Your task to perform on an android device: uninstall "Upside-Cash back on gas & food" Image 0: 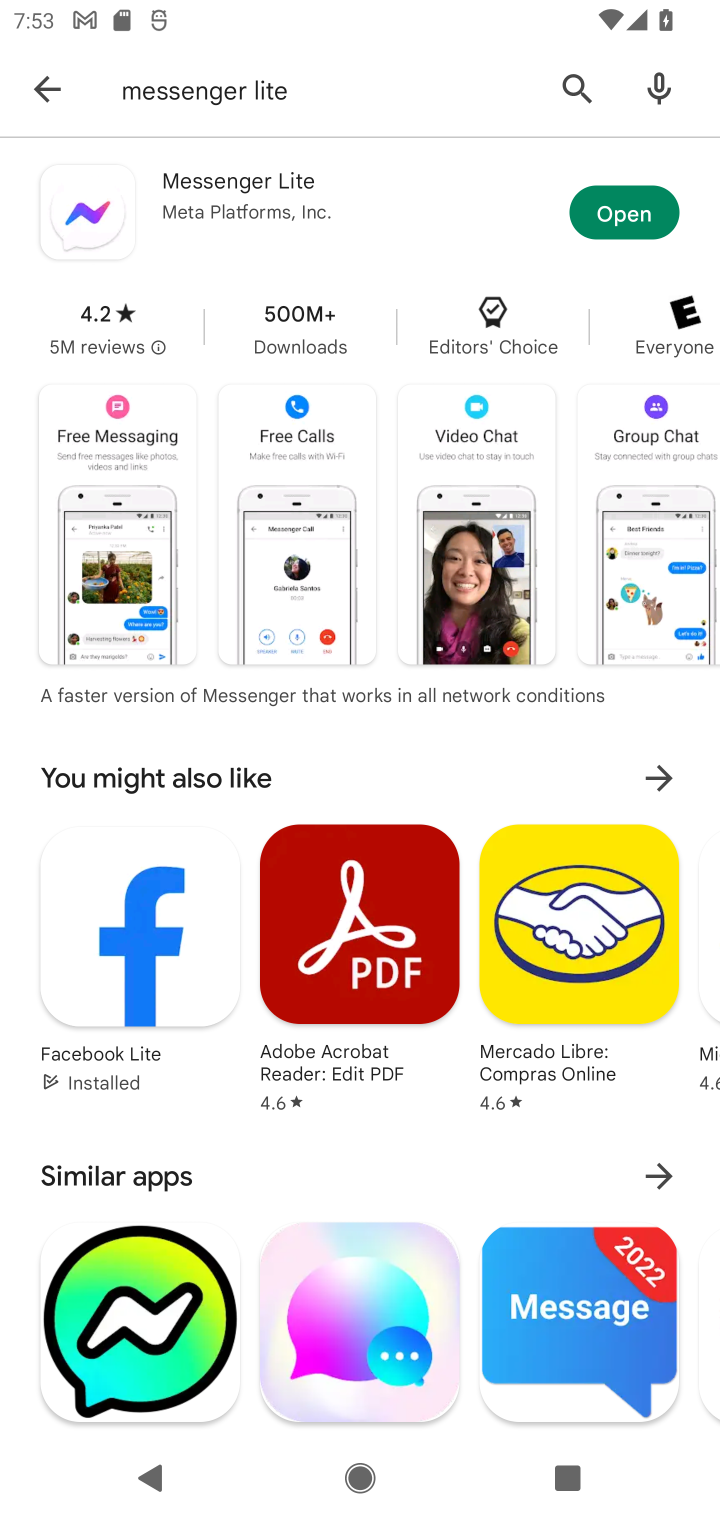
Step 0: press home button
Your task to perform on an android device: uninstall "Upside-Cash back on gas & food" Image 1: 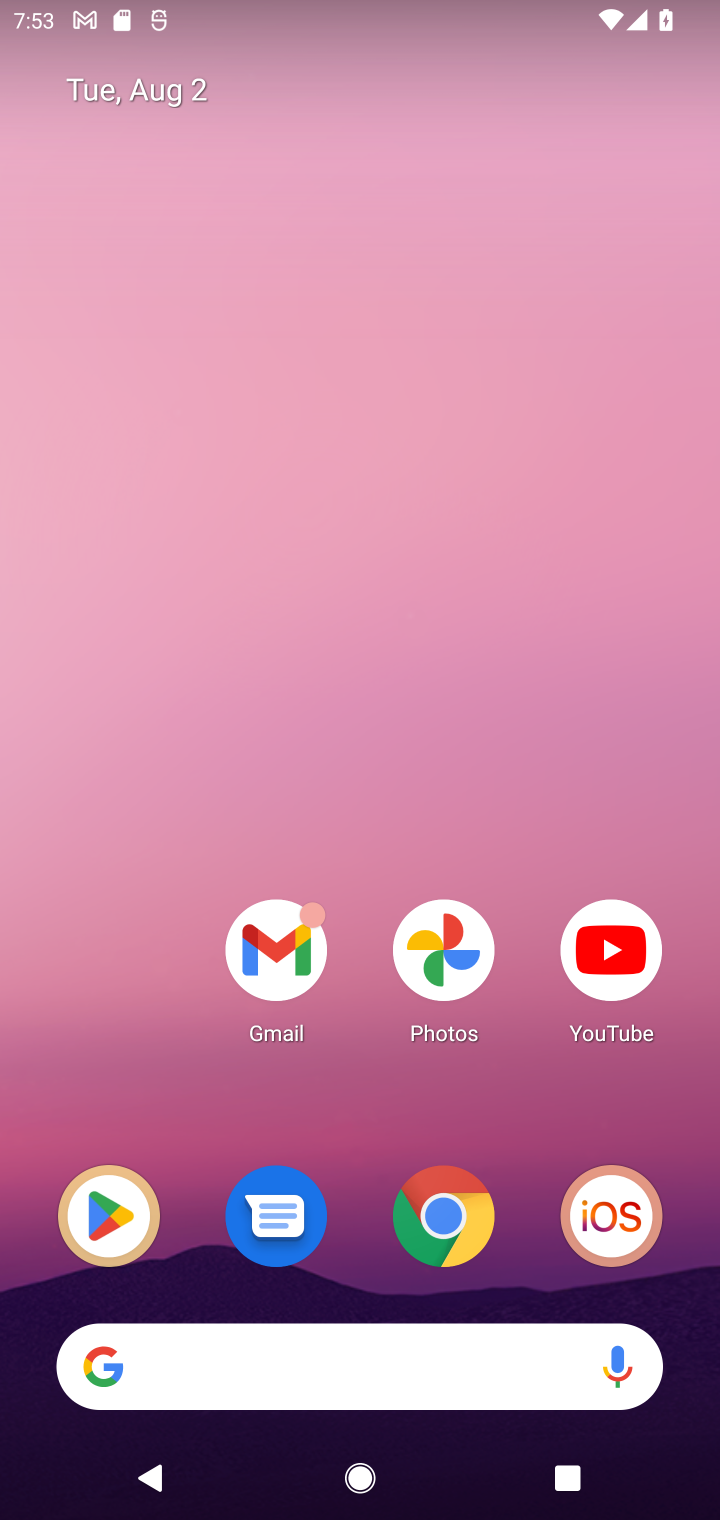
Step 1: click (122, 1232)
Your task to perform on an android device: uninstall "Upside-Cash back on gas & food" Image 2: 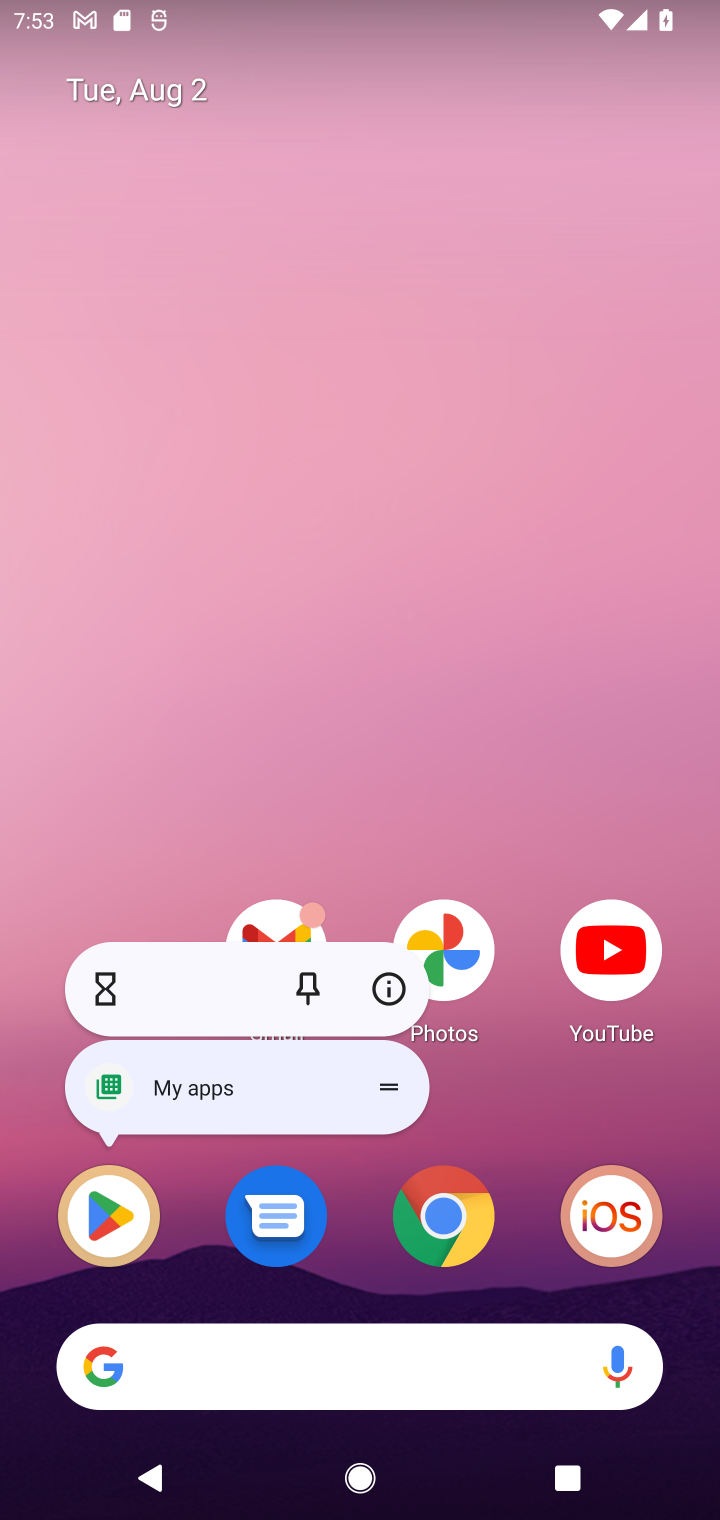
Step 2: click (106, 1215)
Your task to perform on an android device: uninstall "Upside-Cash back on gas & food" Image 3: 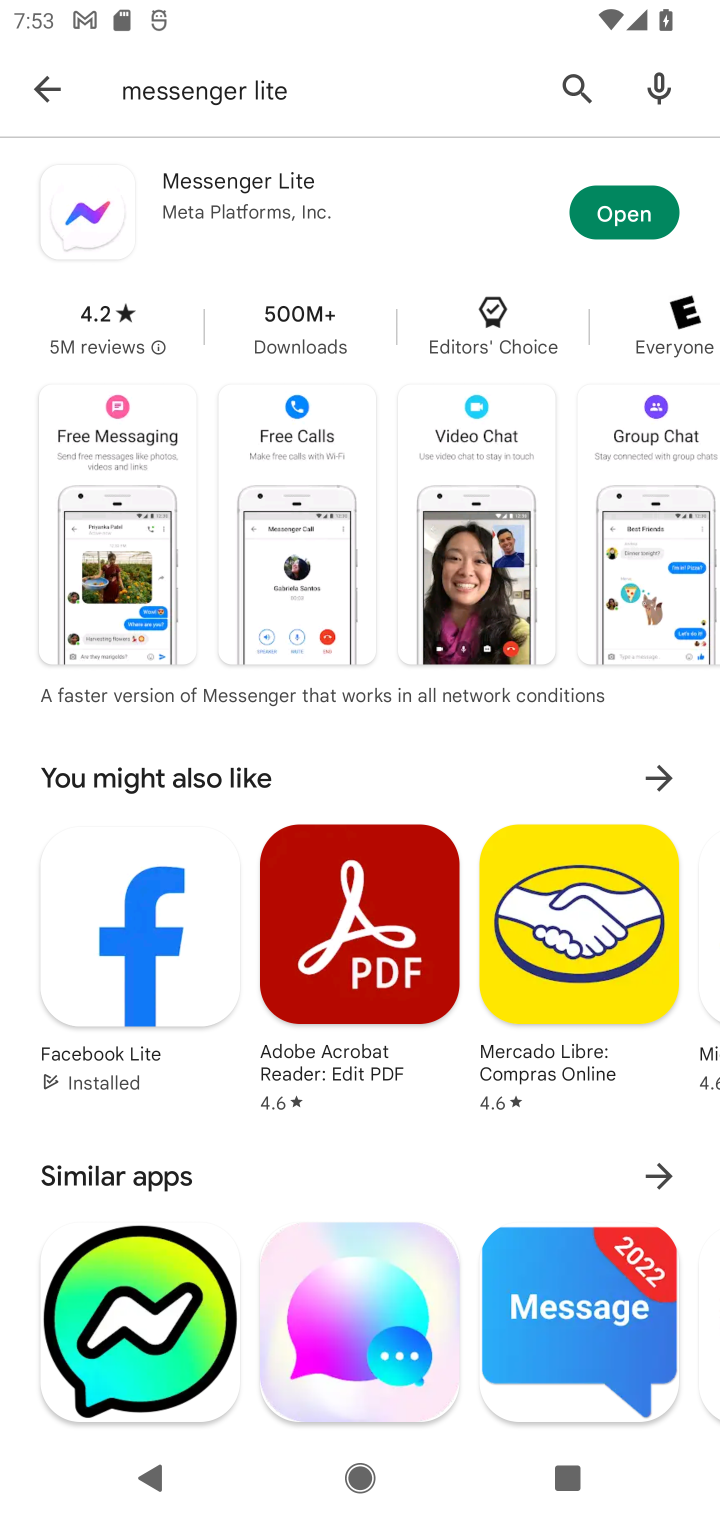
Step 3: click (575, 87)
Your task to perform on an android device: uninstall "Upside-Cash back on gas & food" Image 4: 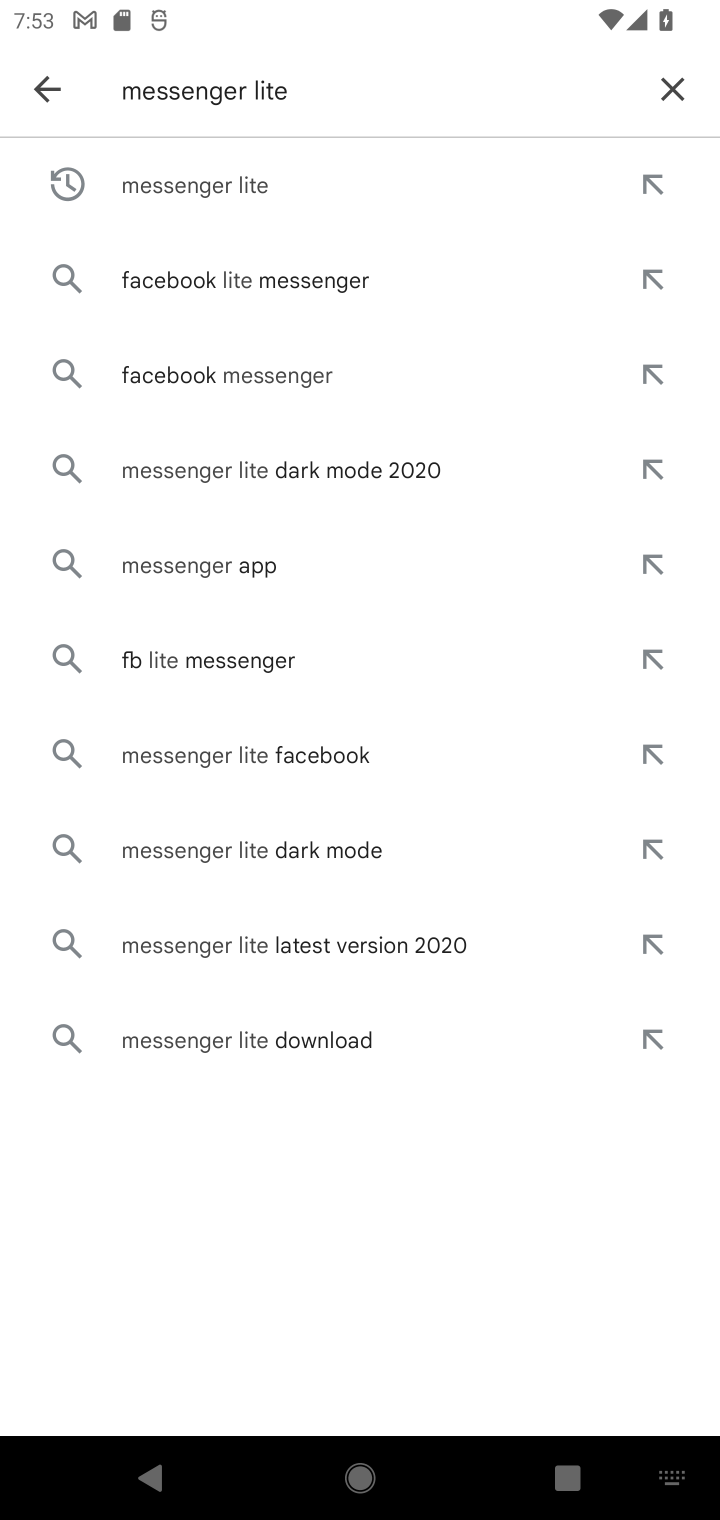
Step 4: click (667, 81)
Your task to perform on an android device: uninstall "Upside-Cash back on gas & food" Image 5: 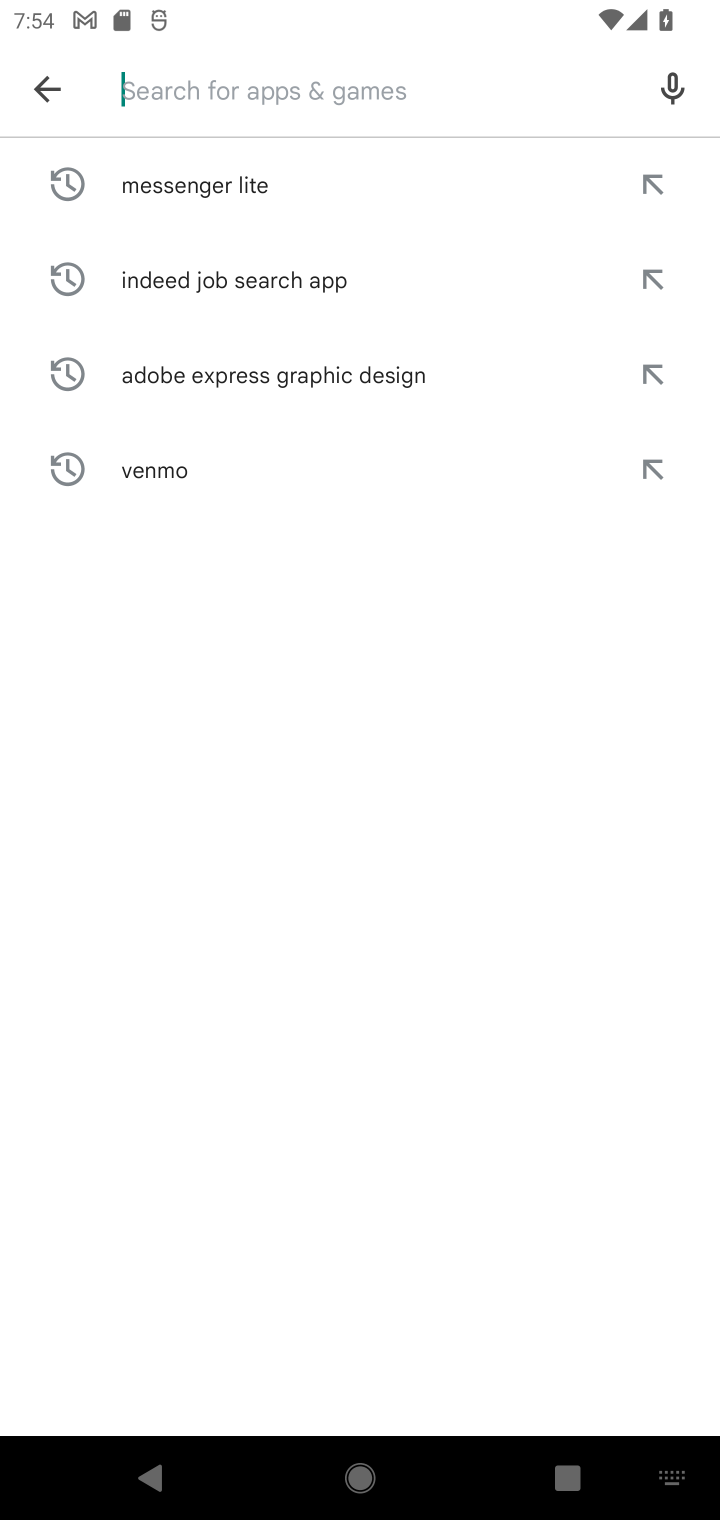
Step 5: type "Upside-Cash back on gas & food"
Your task to perform on an android device: uninstall "Upside-Cash back on gas & food" Image 6: 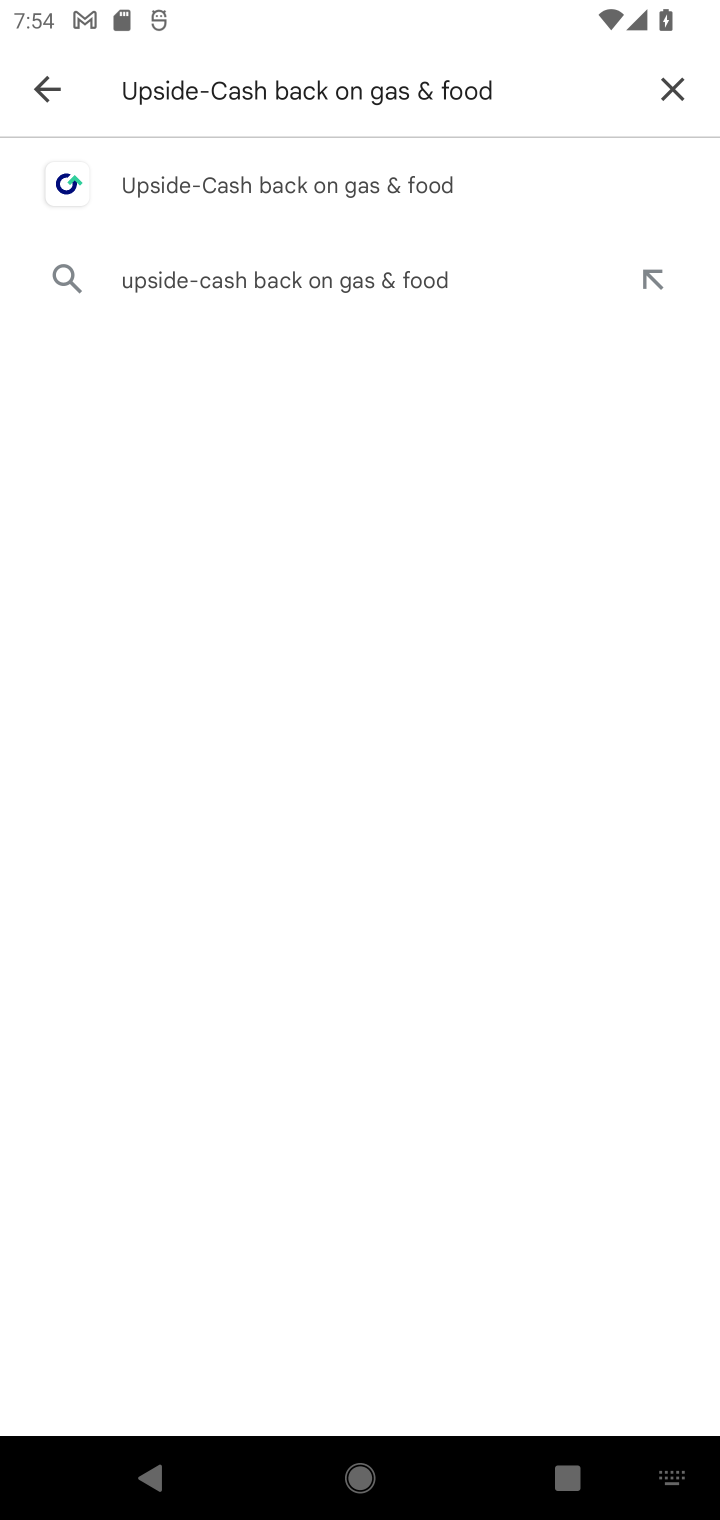
Step 6: click (315, 172)
Your task to perform on an android device: uninstall "Upside-Cash back on gas & food" Image 7: 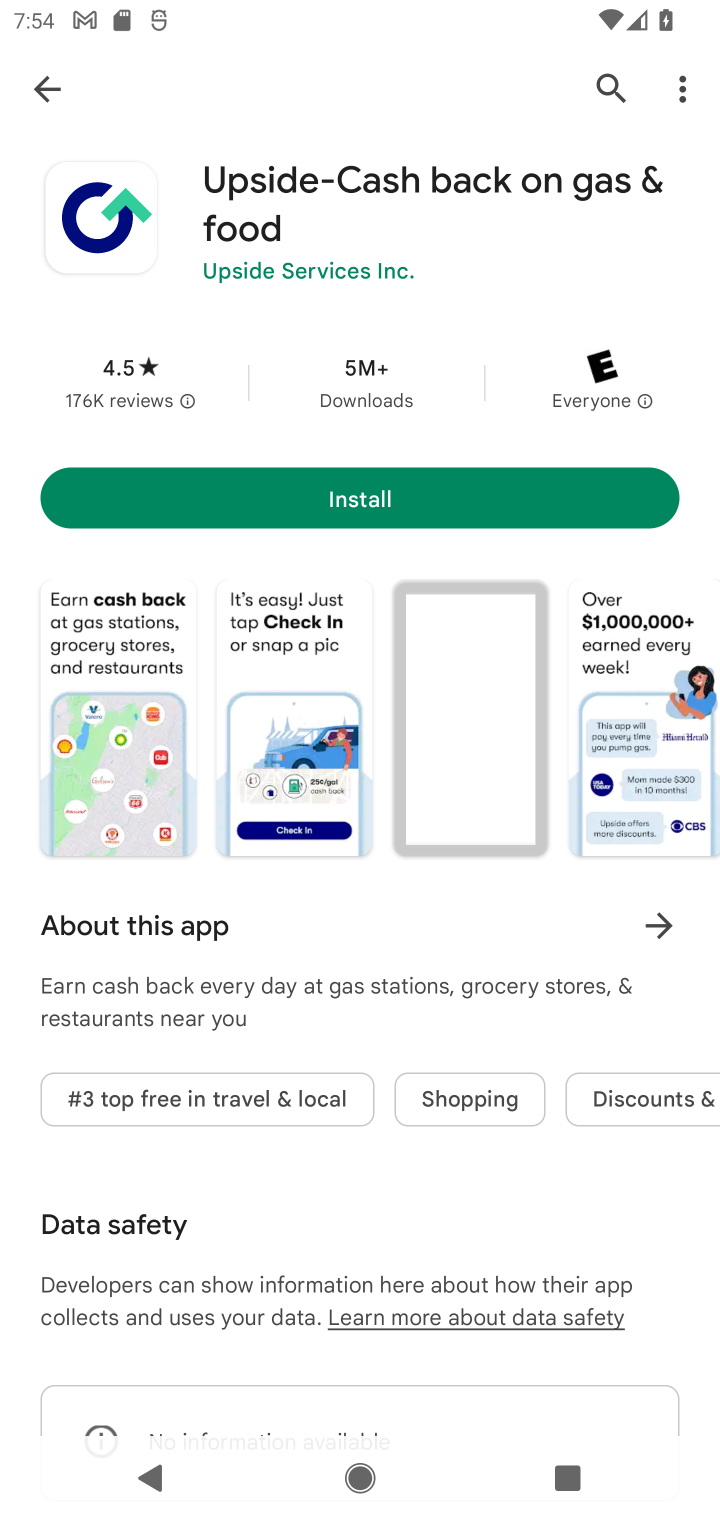
Step 7: task complete